Your task to perform on an android device: move an email to a new category in the gmail app Image 0: 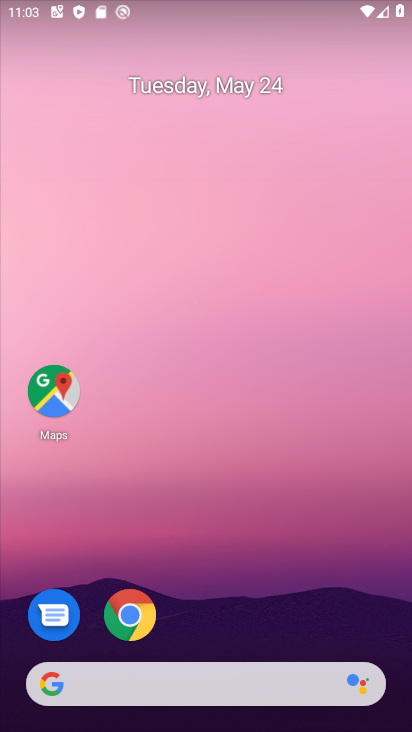
Step 0: drag from (241, 535) to (300, 160)
Your task to perform on an android device: move an email to a new category in the gmail app Image 1: 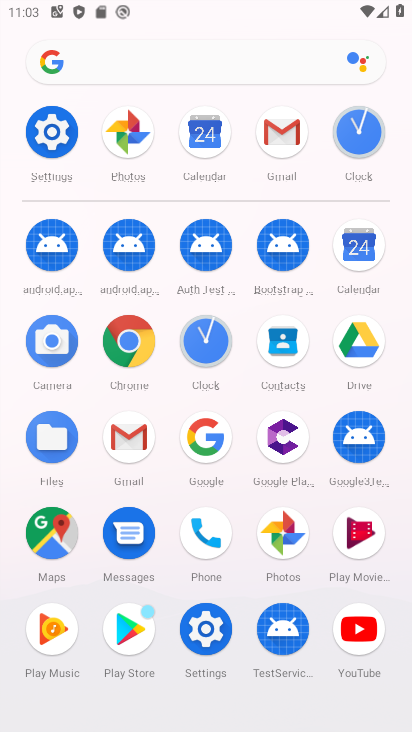
Step 1: click (118, 426)
Your task to perform on an android device: move an email to a new category in the gmail app Image 2: 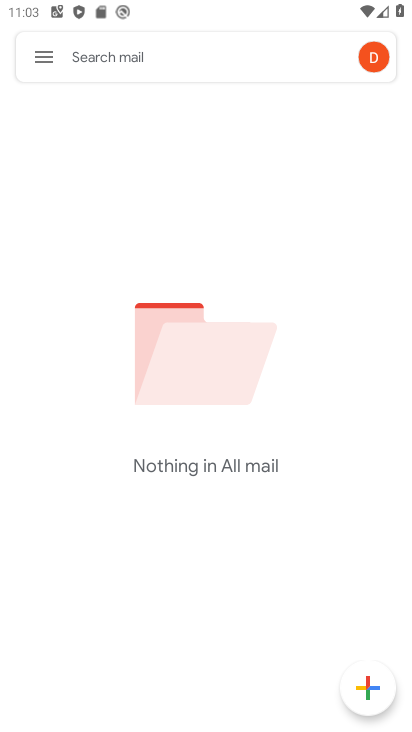
Step 2: click (49, 58)
Your task to perform on an android device: move an email to a new category in the gmail app Image 3: 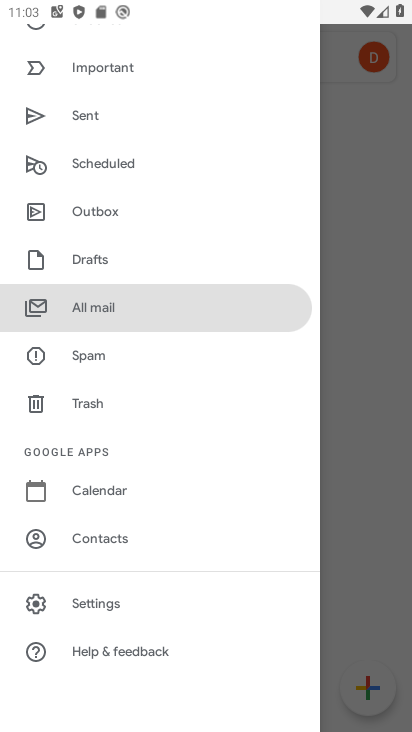
Step 3: drag from (176, 296) to (167, 718)
Your task to perform on an android device: move an email to a new category in the gmail app Image 4: 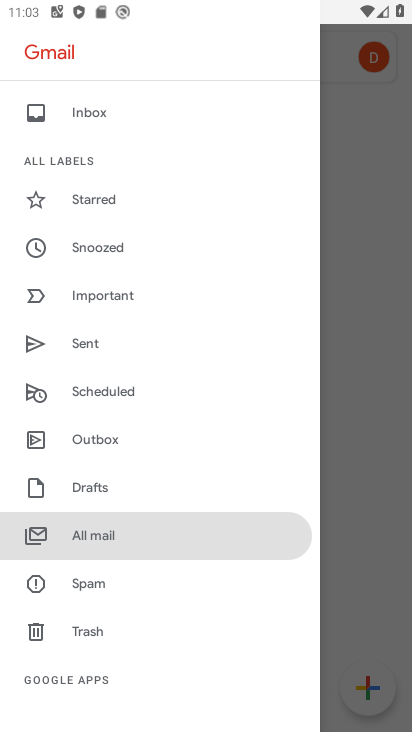
Step 4: click (171, 83)
Your task to perform on an android device: move an email to a new category in the gmail app Image 5: 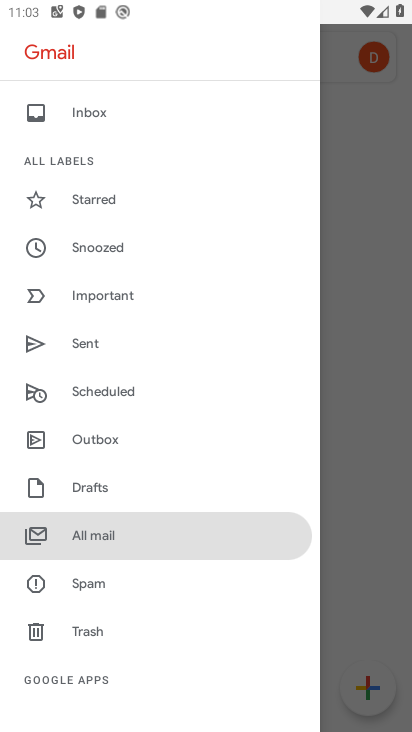
Step 5: click (150, 117)
Your task to perform on an android device: move an email to a new category in the gmail app Image 6: 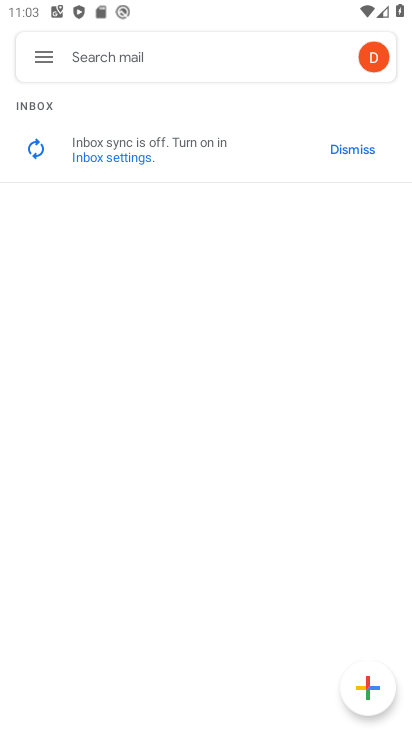
Step 6: task complete